Your task to perform on an android device: Search for a 100 ft extension cord Image 0: 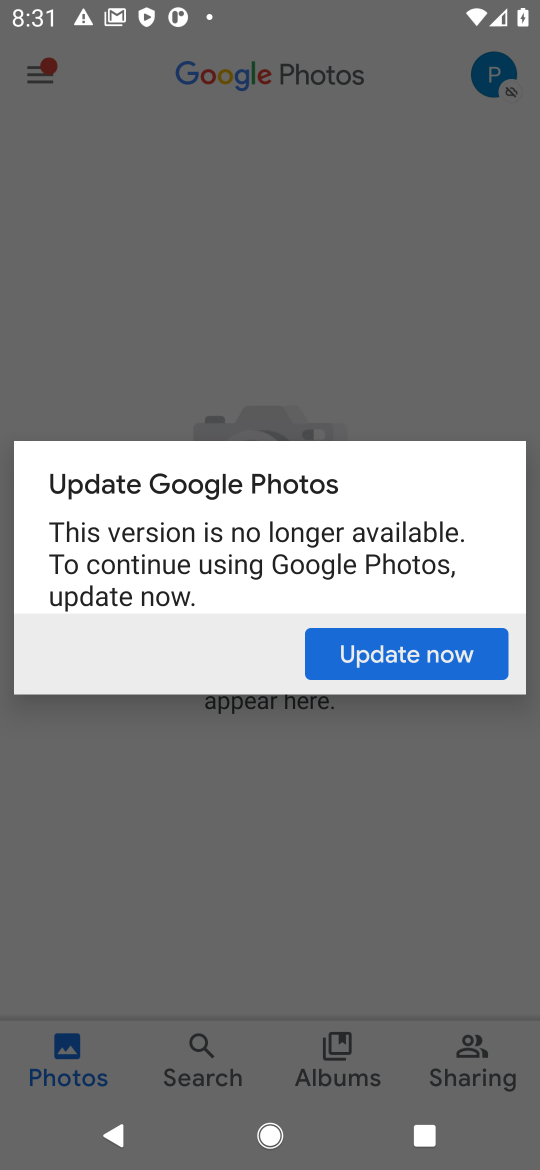
Step 0: press home button
Your task to perform on an android device: Search for a 100 ft extension cord Image 1: 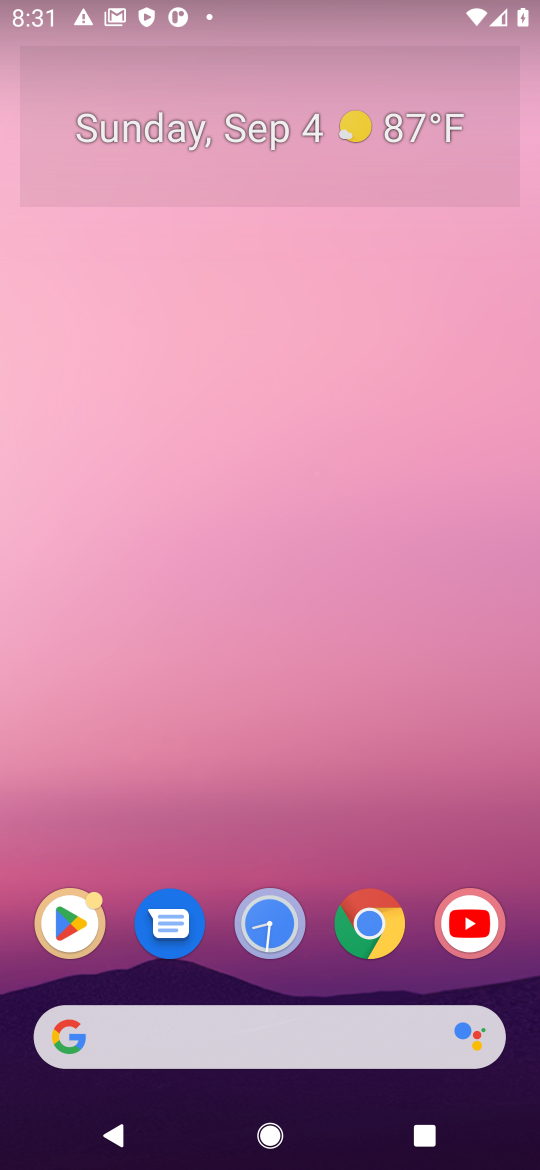
Step 1: click (394, 1023)
Your task to perform on an android device: Search for a 100 ft extension cord Image 2: 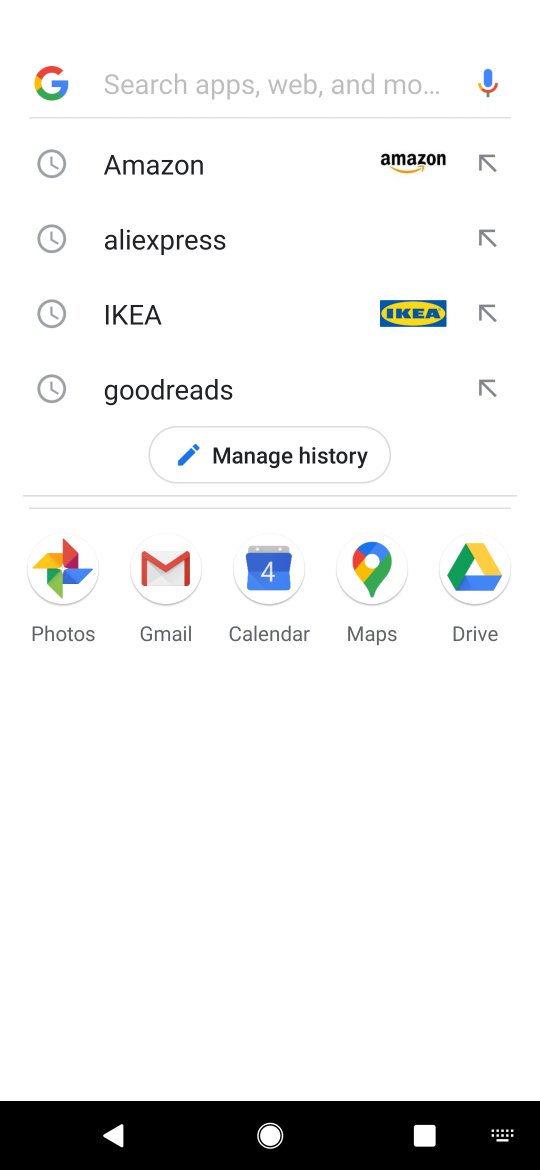
Step 2: press enter
Your task to perform on an android device: Search for a 100 ft extension cord Image 3: 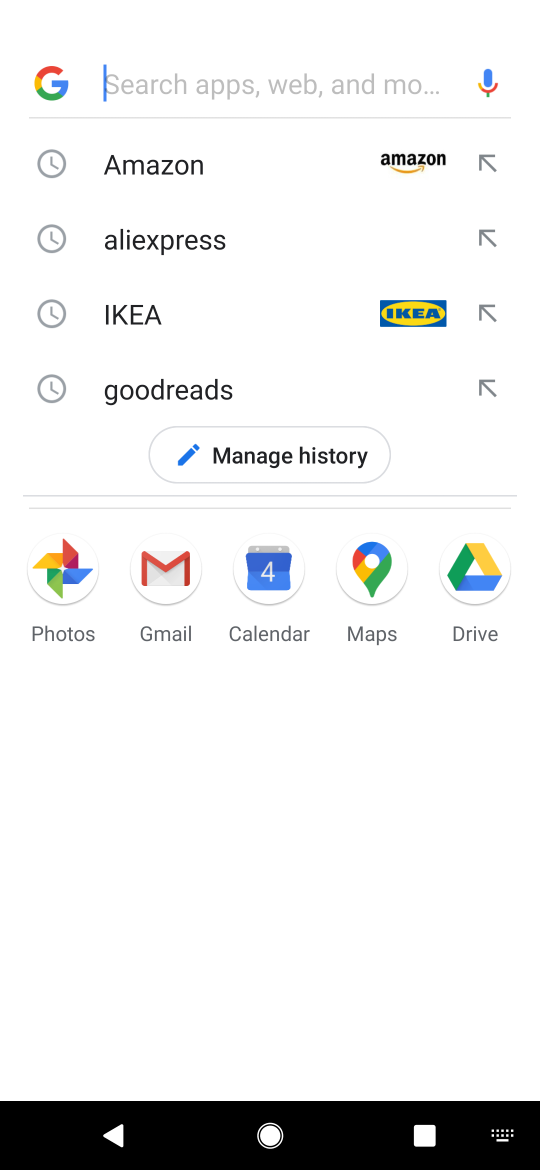
Step 3: type "100 ft extension cord"
Your task to perform on an android device: Search for a 100 ft extension cord Image 4: 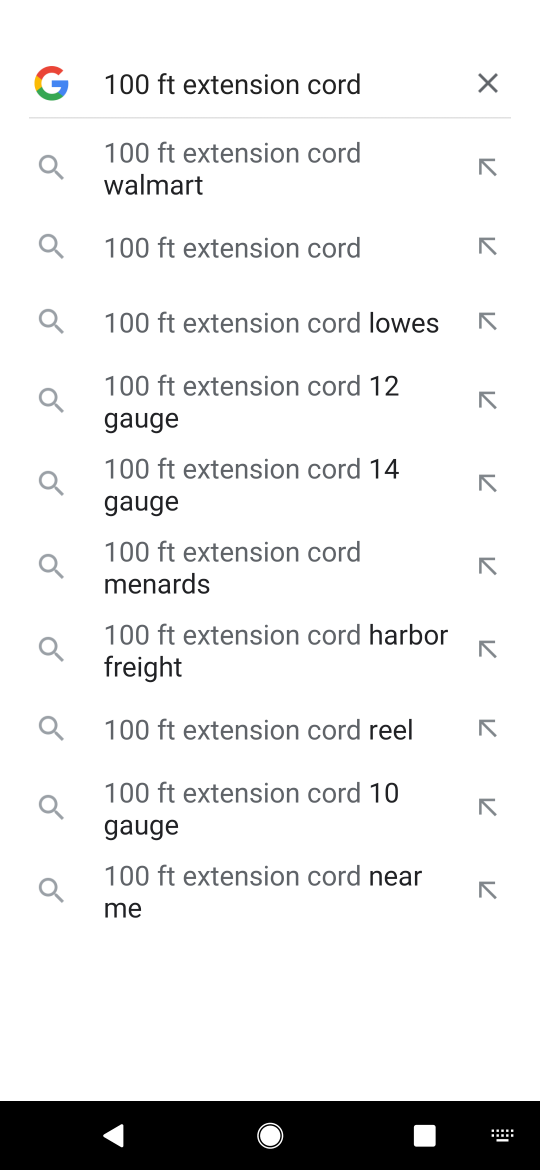
Step 4: click (316, 249)
Your task to perform on an android device: Search for a 100 ft extension cord Image 5: 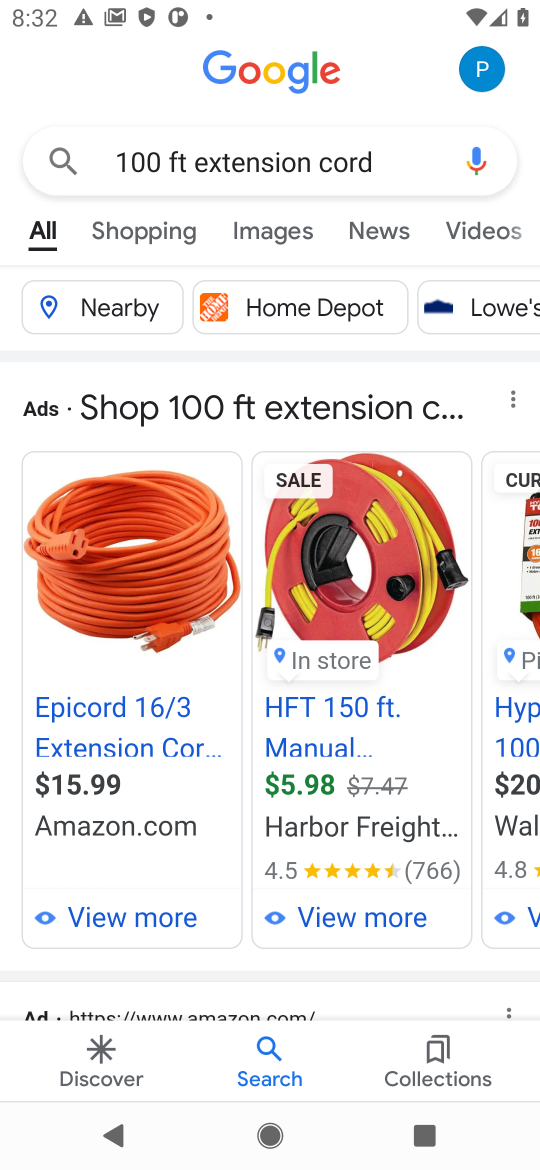
Step 5: task complete